Your task to perform on an android device: Go to CNN.com Image 0: 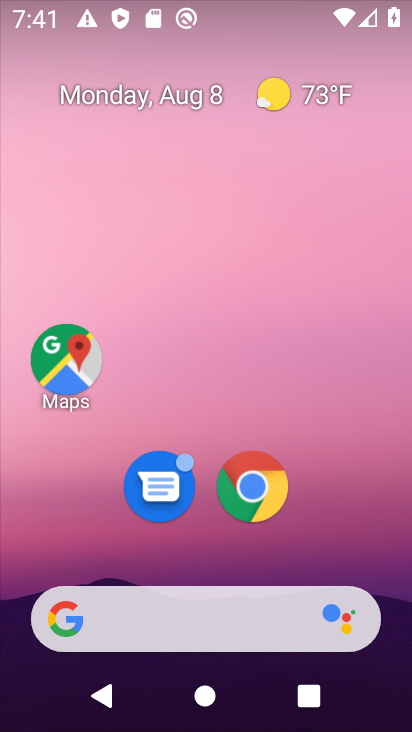
Step 0: drag from (250, 567) to (401, 360)
Your task to perform on an android device: Go to CNN.com Image 1: 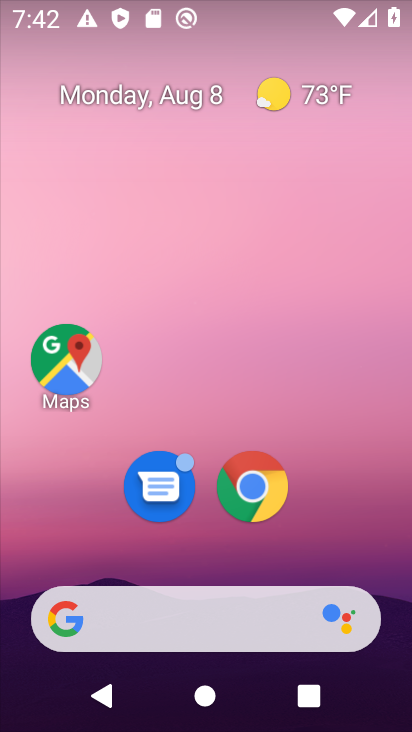
Step 1: drag from (234, 571) to (206, 9)
Your task to perform on an android device: Go to CNN.com Image 2: 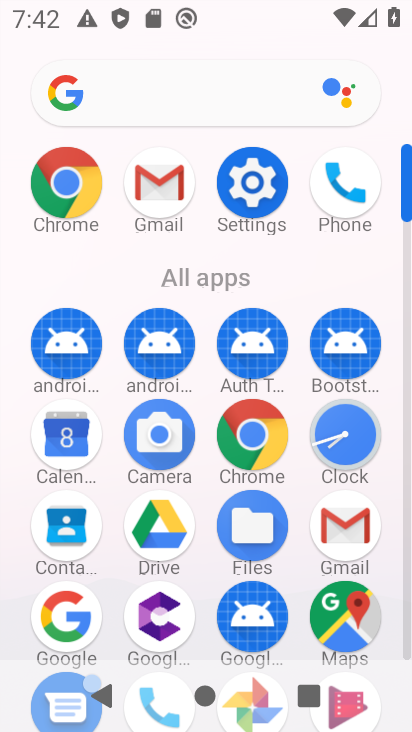
Step 2: click (72, 166)
Your task to perform on an android device: Go to CNN.com Image 3: 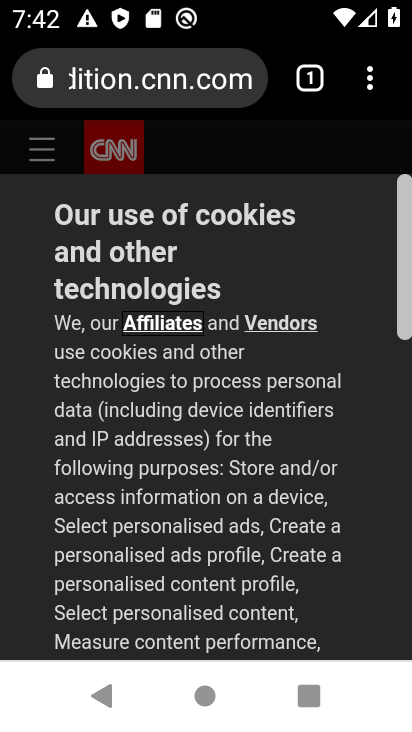
Step 3: task complete